Your task to perform on an android device: Show me popular videos on Youtube Image 0: 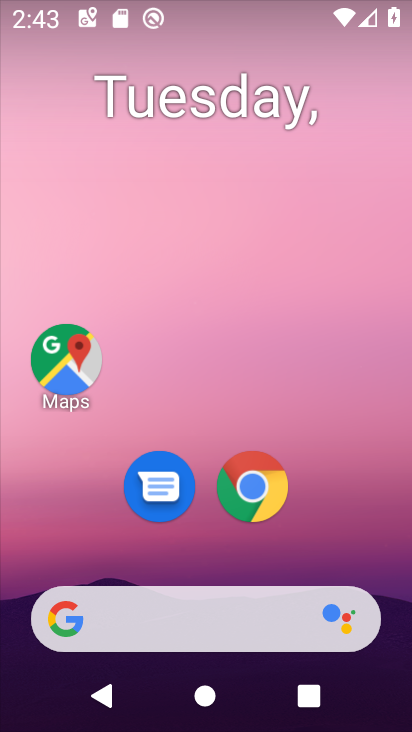
Step 0: press home button
Your task to perform on an android device: Show me popular videos on Youtube Image 1: 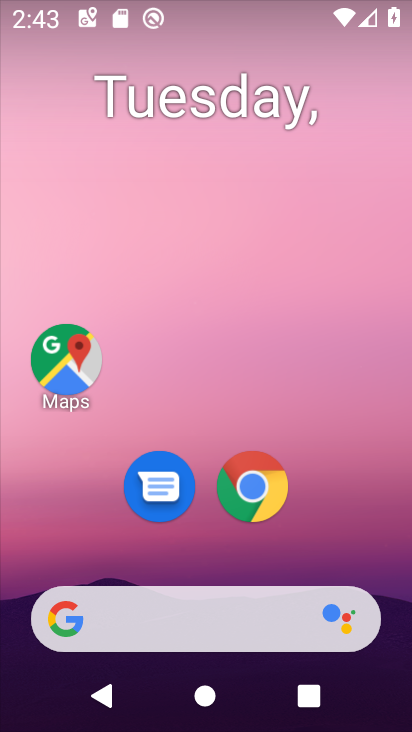
Step 1: drag from (210, 550) to (218, 82)
Your task to perform on an android device: Show me popular videos on Youtube Image 2: 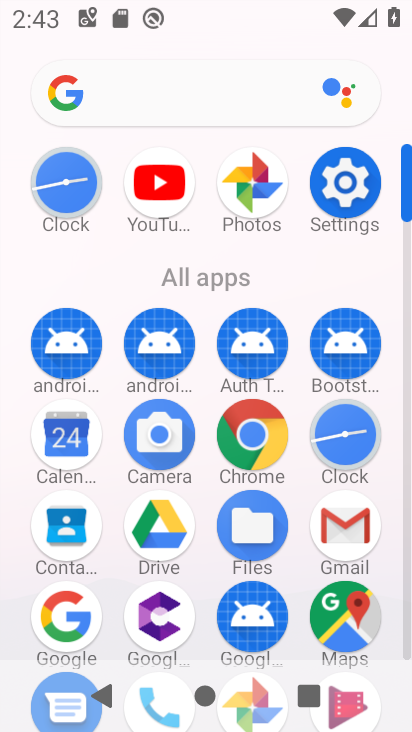
Step 2: click (157, 177)
Your task to perform on an android device: Show me popular videos on Youtube Image 3: 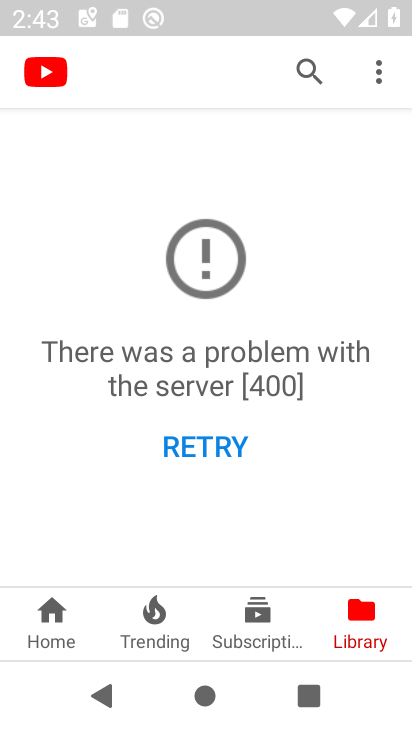
Step 3: click (150, 611)
Your task to perform on an android device: Show me popular videos on Youtube Image 4: 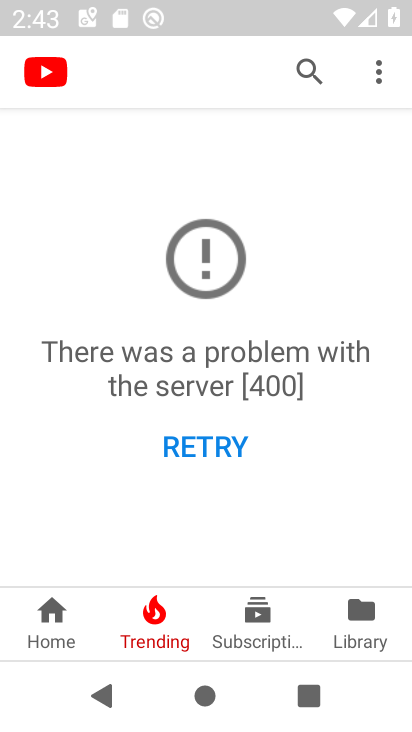
Step 4: click (216, 447)
Your task to perform on an android device: Show me popular videos on Youtube Image 5: 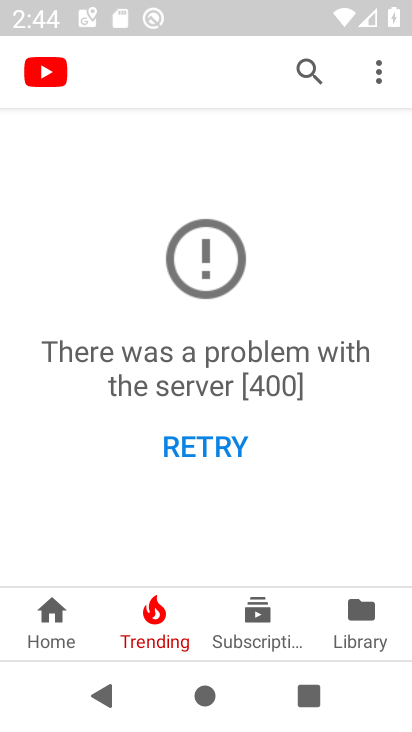
Step 5: task complete